Your task to perform on an android device: Go to Google Image 0: 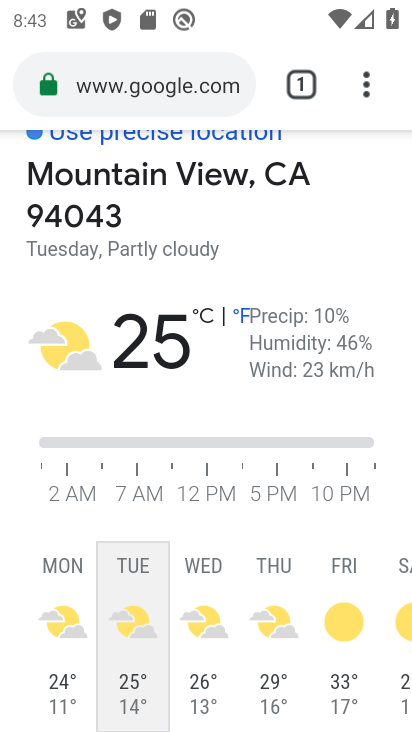
Step 0: press home button
Your task to perform on an android device: Go to Google Image 1: 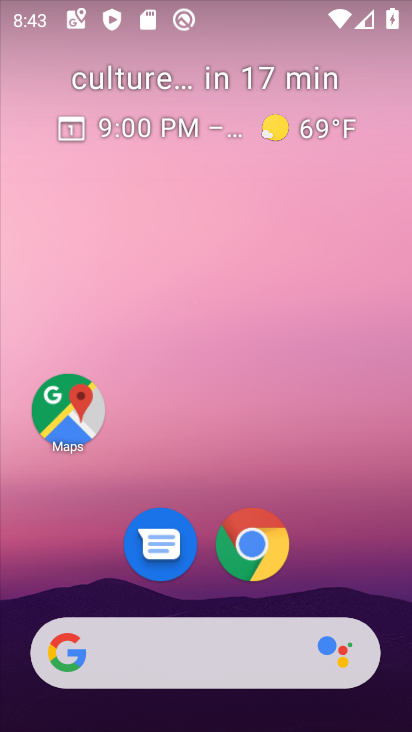
Step 1: drag from (203, 587) to (208, 240)
Your task to perform on an android device: Go to Google Image 2: 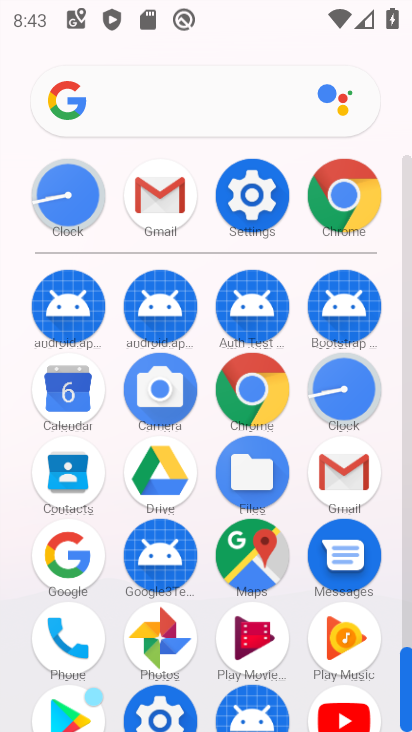
Step 2: click (64, 569)
Your task to perform on an android device: Go to Google Image 3: 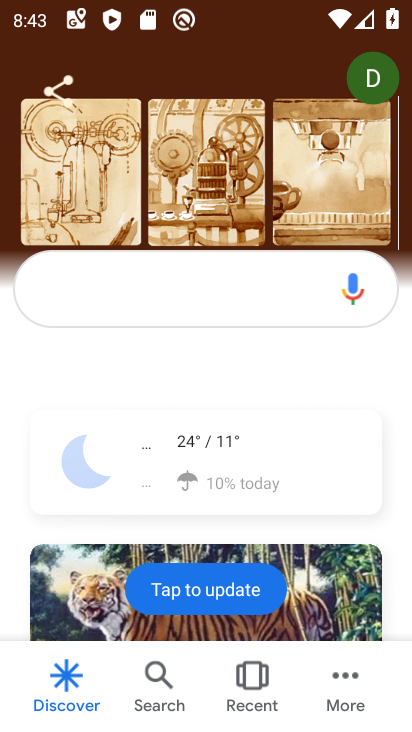
Step 3: task complete